Your task to perform on an android device: turn on sleep mode Image 0: 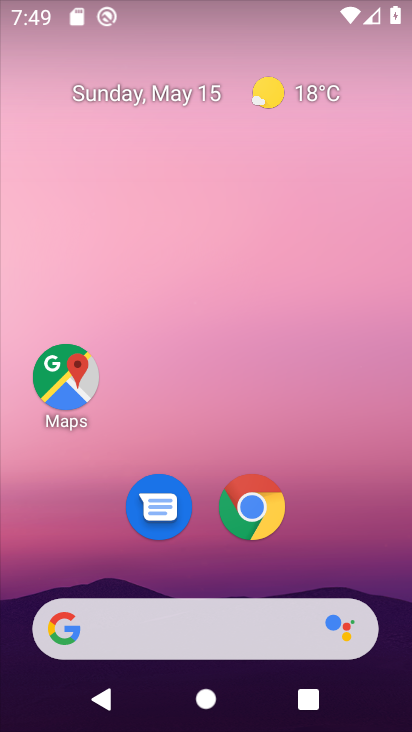
Step 0: drag from (396, 642) to (333, 145)
Your task to perform on an android device: turn on sleep mode Image 1: 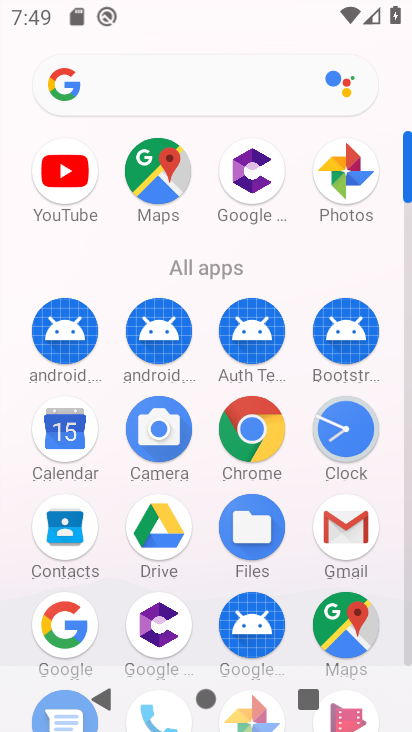
Step 1: click (410, 653)
Your task to perform on an android device: turn on sleep mode Image 2: 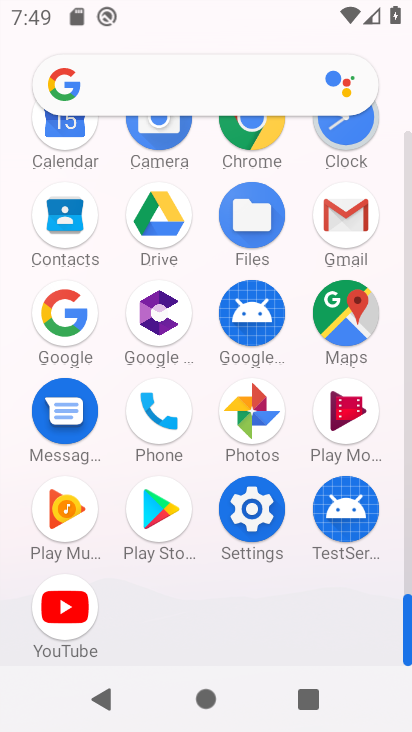
Step 2: click (251, 506)
Your task to perform on an android device: turn on sleep mode Image 3: 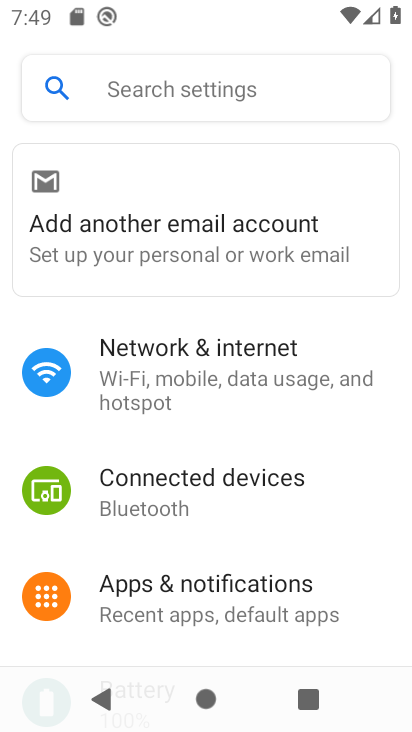
Step 3: drag from (337, 575) to (321, 229)
Your task to perform on an android device: turn on sleep mode Image 4: 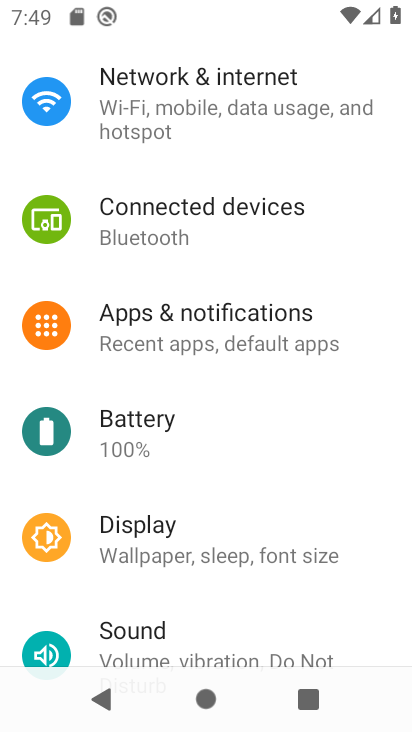
Step 4: click (141, 531)
Your task to perform on an android device: turn on sleep mode Image 5: 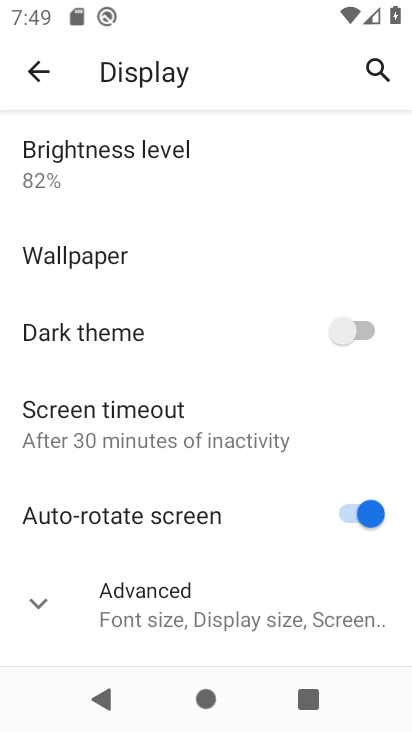
Step 5: click (35, 607)
Your task to perform on an android device: turn on sleep mode Image 6: 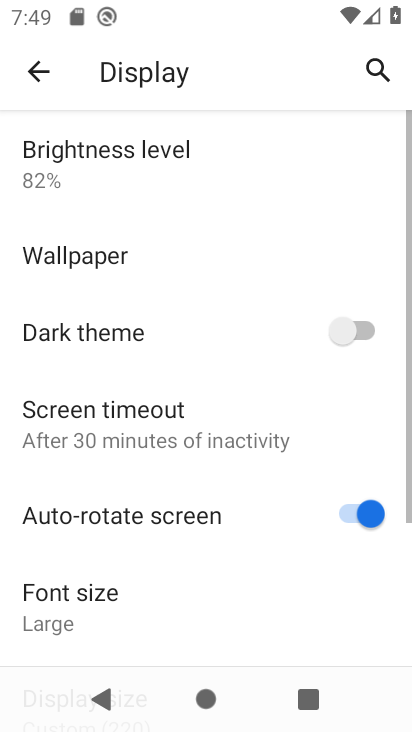
Step 6: task complete